Your task to perform on an android device: Show me popular videos on Youtube Image 0: 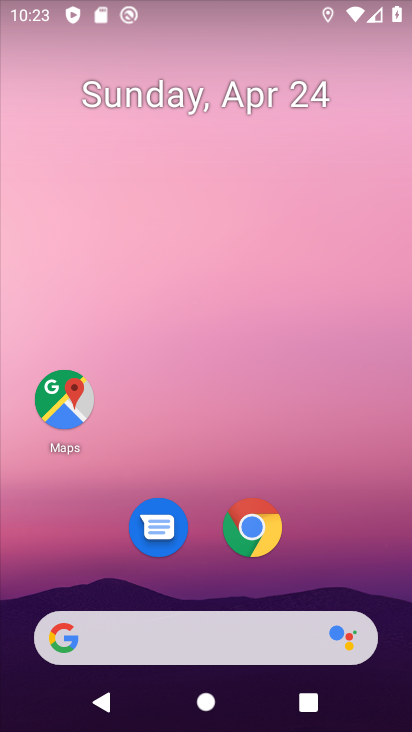
Step 0: drag from (293, 562) to (264, 87)
Your task to perform on an android device: Show me popular videos on Youtube Image 1: 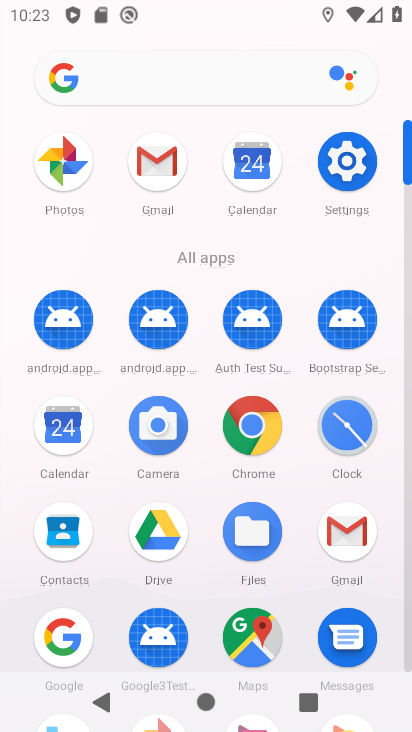
Step 1: drag from (308, 581) to (307, 226)
Your task to perform on an android device: Show me popular videos on Youtube Image 2: 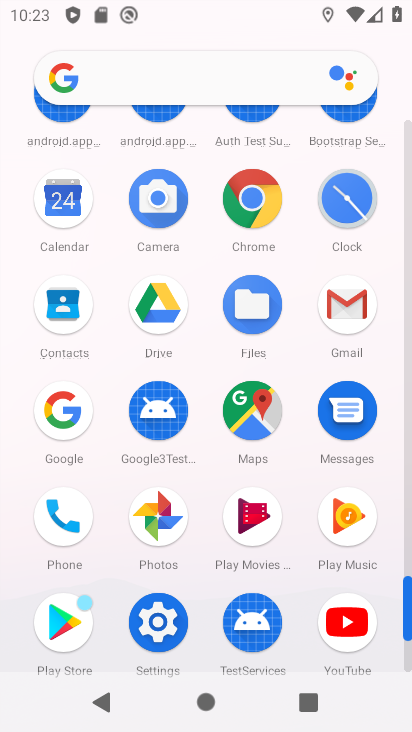
Step 2: click (322, 630)
Your task to perform on an android device: Show me popular videos on Youtube Image 3: 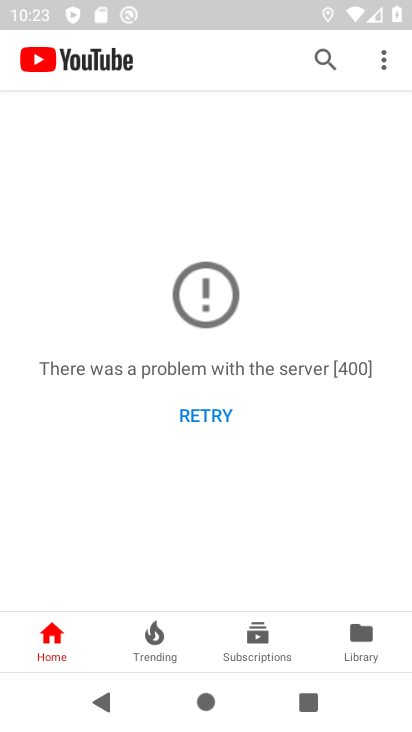
Step 3: click (145, 648)
Your task to perform on an android device: Show me popular videos on Youtube Image 4: 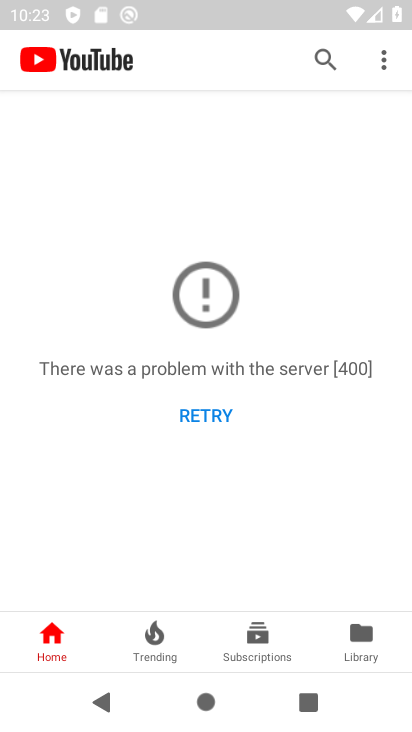
Step 4: click (145, 648)
Your task to perform on an android device: Show me popular videos on Youtube Image 5: 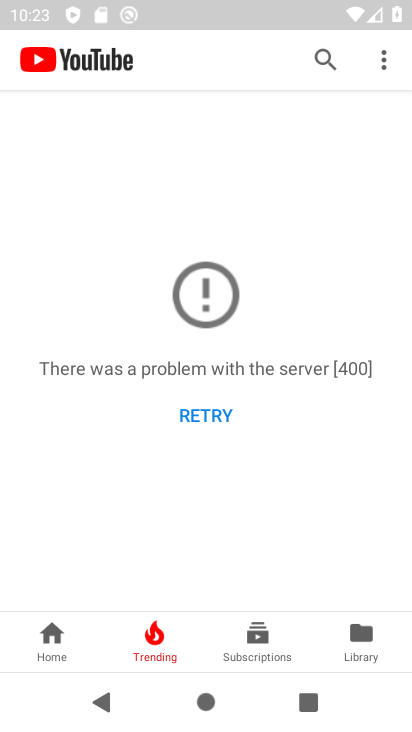
Step 5: click (198, 411)
Your task to perform on an android device: Show me popular videos on Youtube Image 6: 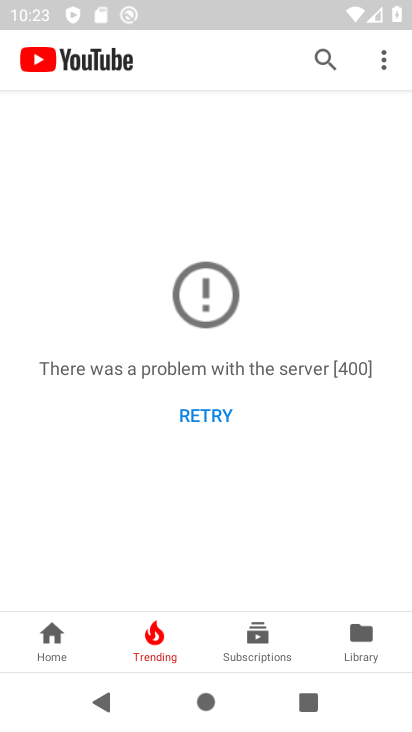
Step 6: click (211, 405)
Your task to perform on an android device: Show me popular videos on Youtube Image 7: 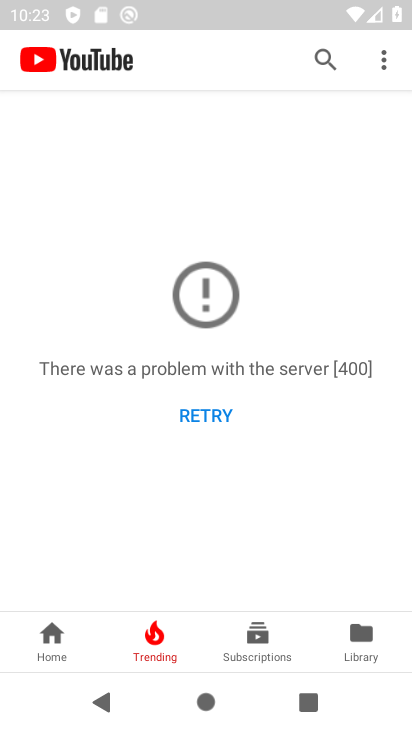
Step 7: task complete